Your task to perform on an android device: Add bose soundlink mini to the cart on ebay.com Image 0: 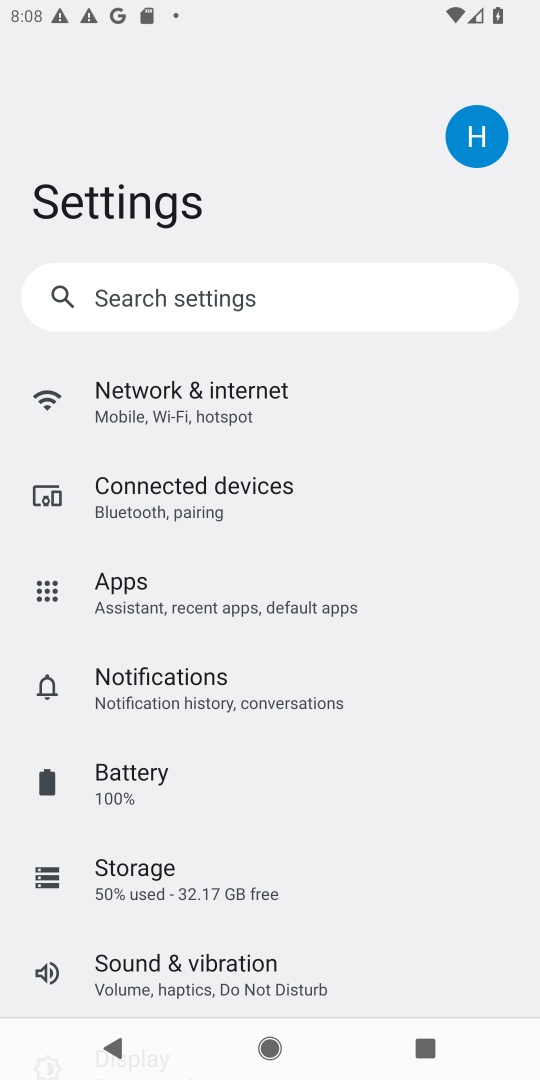
Step 0: press home button
Your task to perform on an android device: Add bose soundlink mini to the cart on ebay.com Image 1: 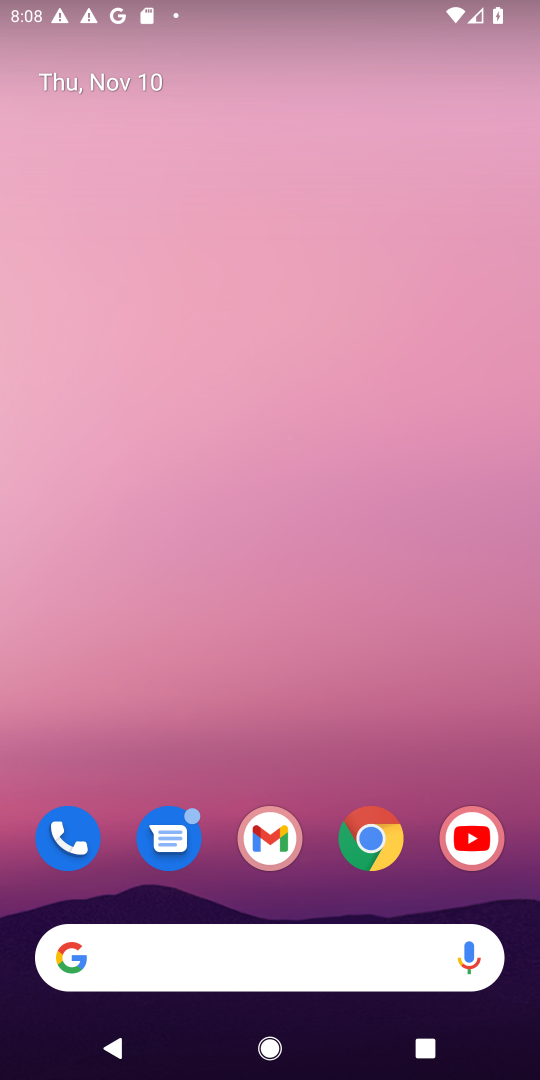
Step 1: drag from (322, 905) to (383, 59)
Your task to perform on an android device: Add bose soundlink mini to the cart on ebay.com Image 2: 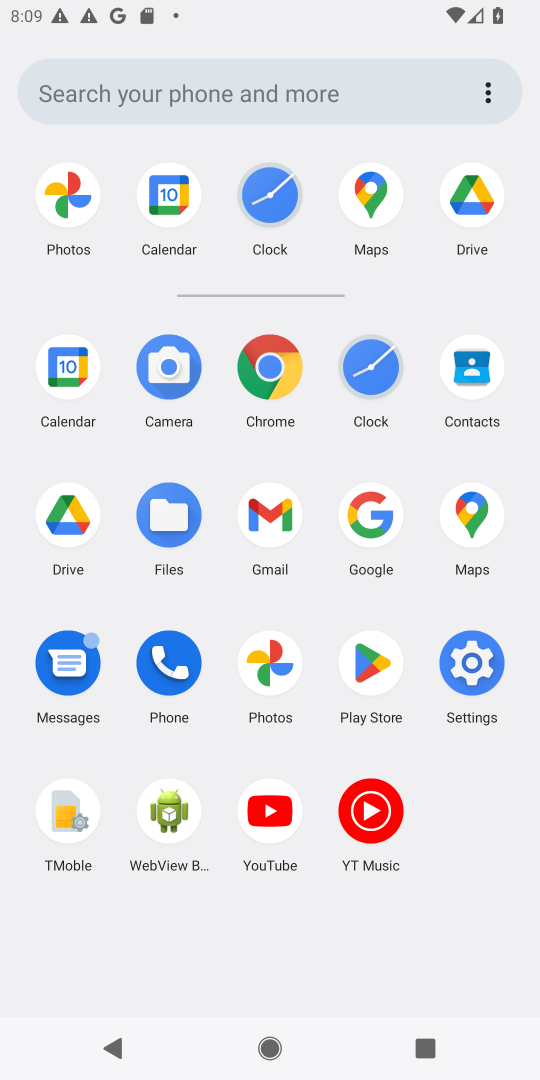
Step 2: click (278, 366)
Your task to perform on an android device: Add bose soundlink mini to the cart on ebay.com Image 3: 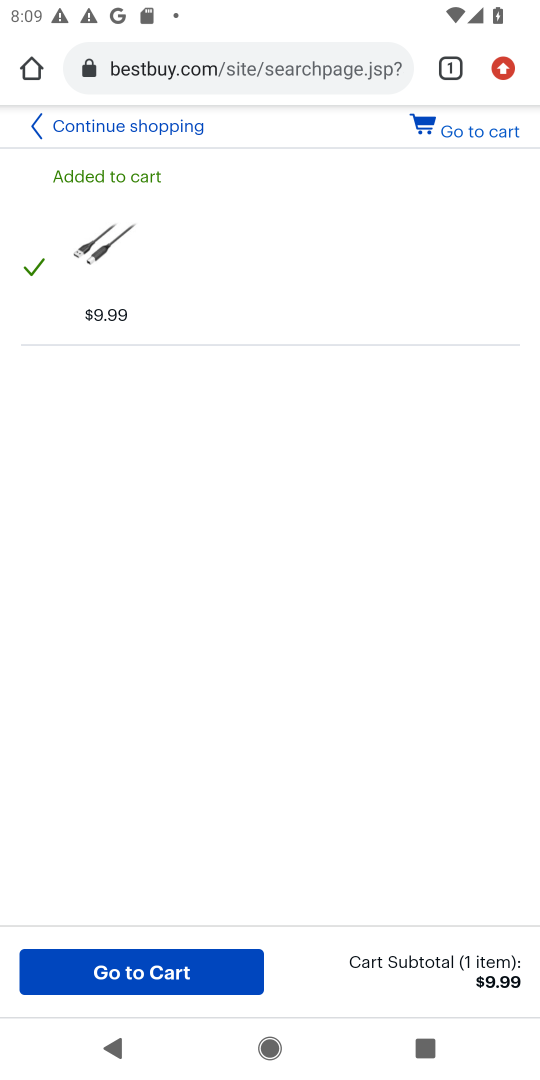
Step 3: click (286, 69)
Your task to perform on an android device: Add bose soundlink mini to the cart on ebay.com Image 4: 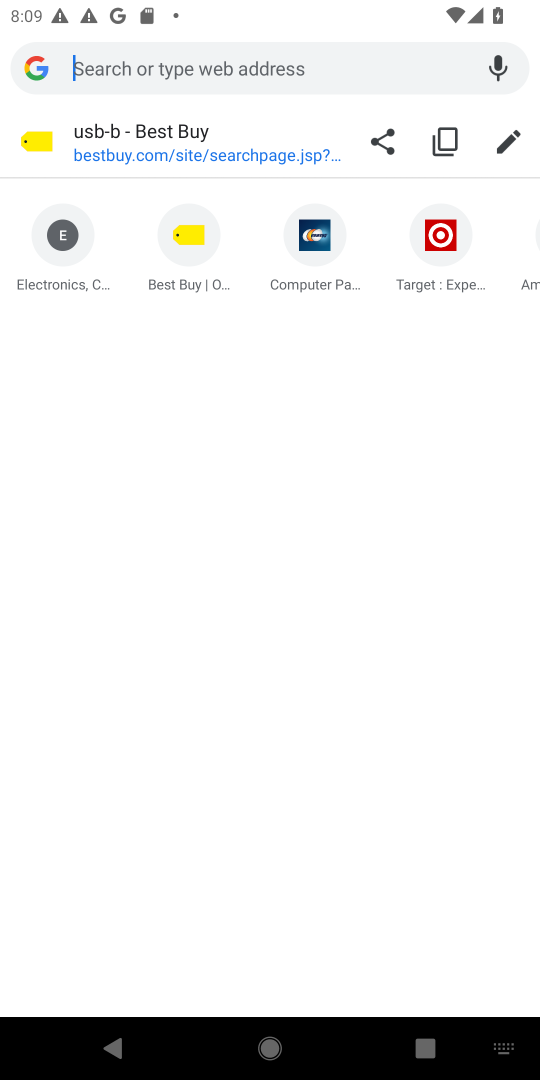
Step 4: type "ebay.com"
Your task to perform on an android device: Add bose soundlink mini to the cart on ebay.com Image 5: 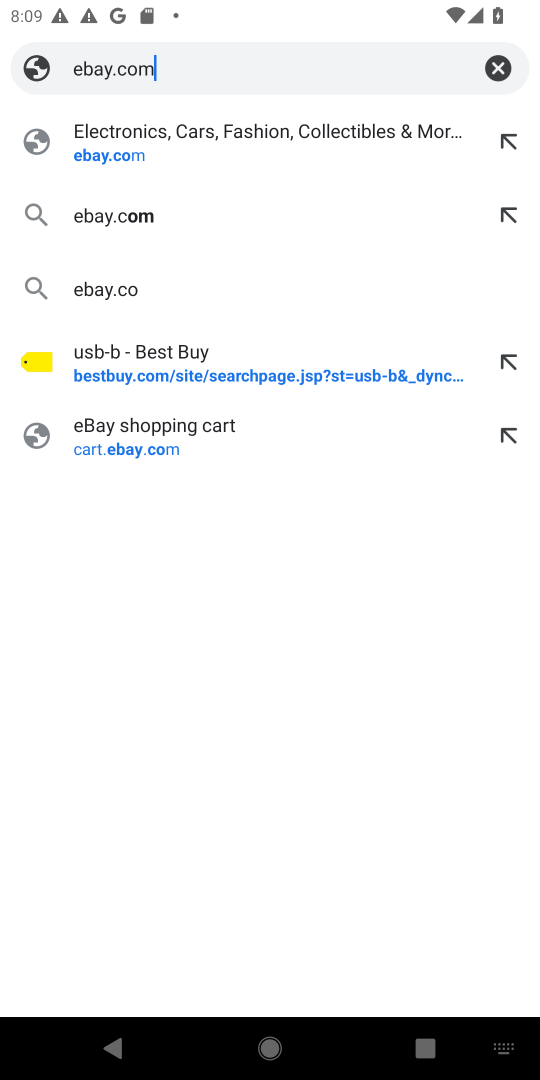
Step 5: press enter
Your task to perform on an android device: Add bose soundlink mini to the cart on ebay.com Image 6: 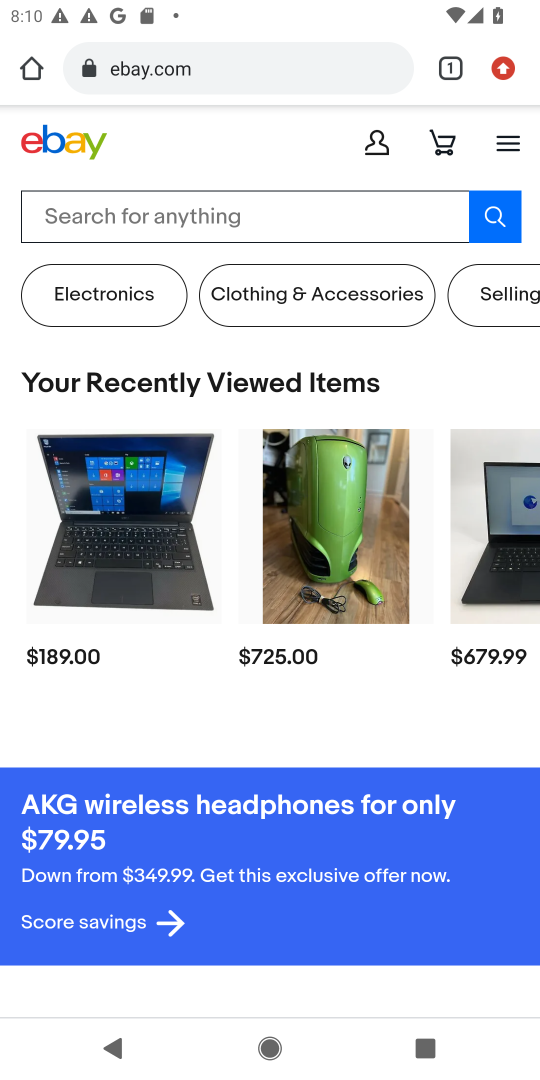
Step 6: click (266, 229)
Your task to perform on an android device: Add bose soundlink mini to the cart on ebay.com Image 7: 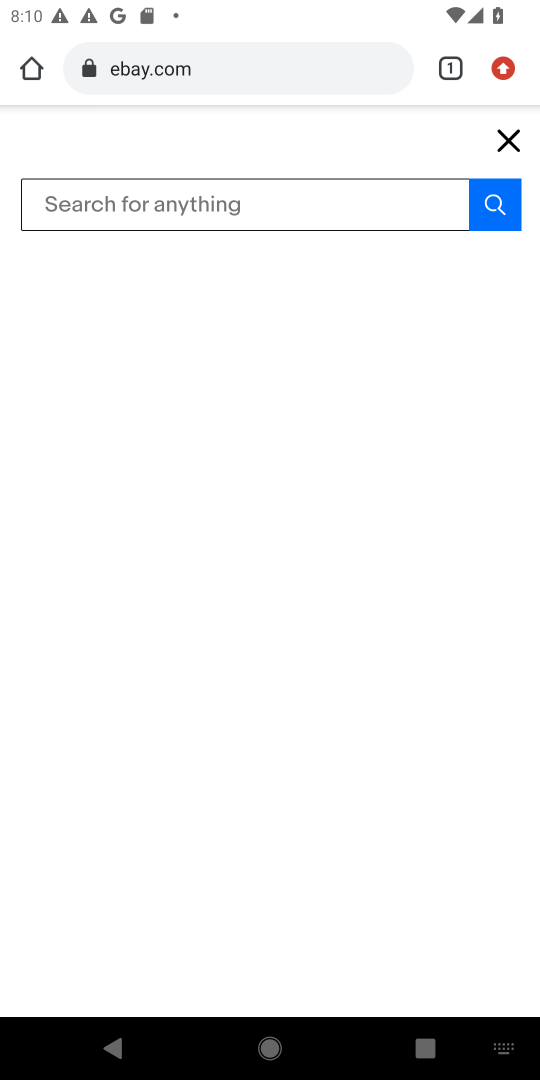
Step 7: type "bose soundlink mini"
Your task to perform on an android device: Add bose soundlink mini to the cart on ebay.com Image 8: 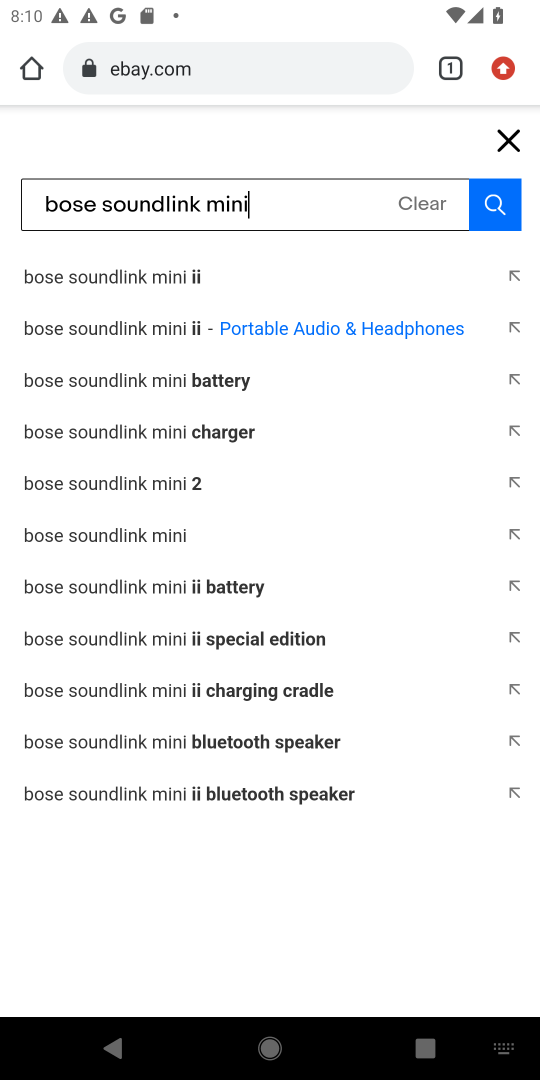
Step 8: press enter
Your task to perform on an android device: Add bose soundlink mini to the cart on ebay.com Image 9: 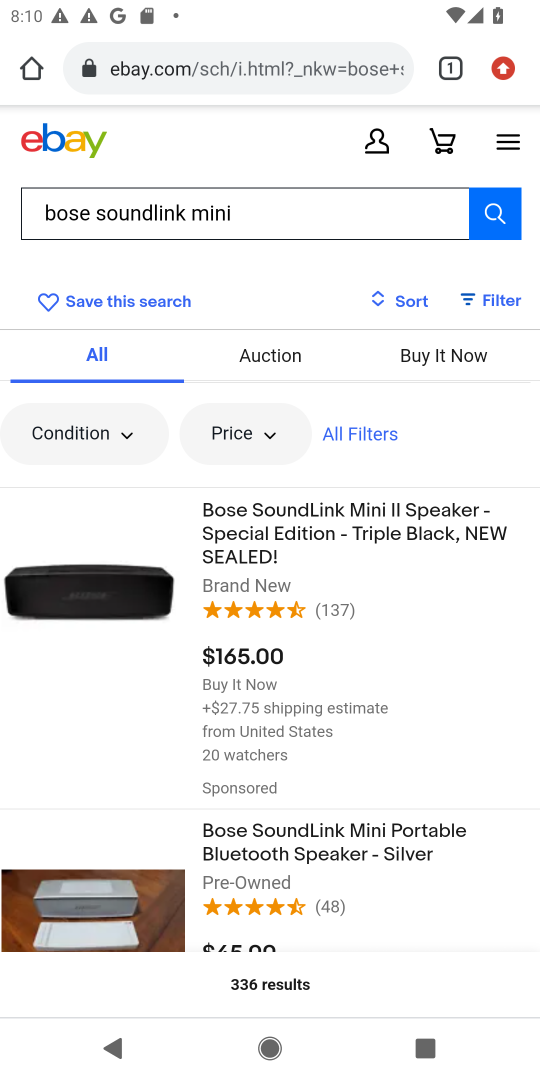
Step 9: click (261, 530)
Your task to perform on an android device: Add bose soundlink mini to the cart on ebay.com Image 10: 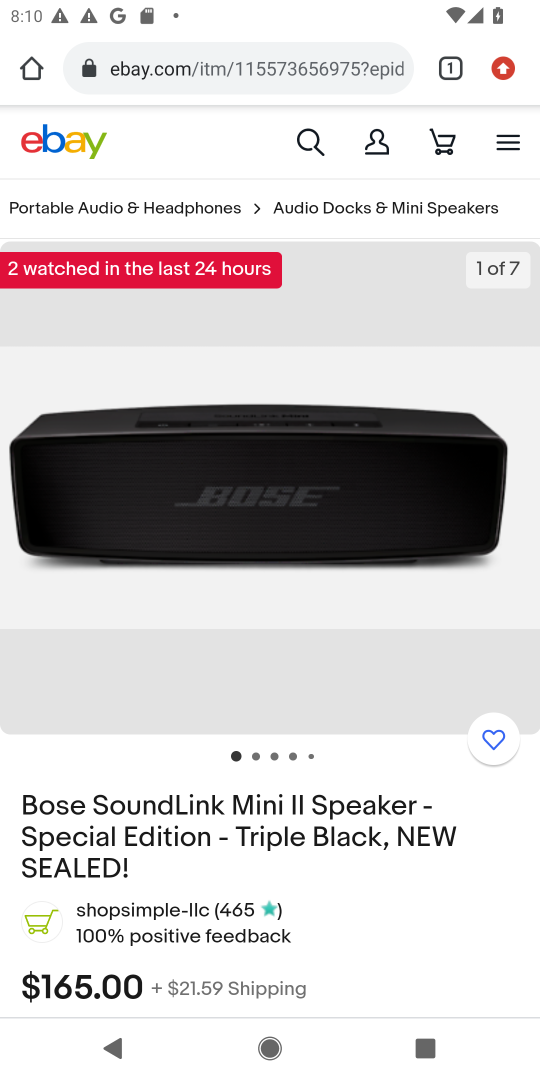
Step 10: drag from (330, 975) to (350, 173)
Your task to perform on an android device: Add bose soundlink mini to the cart on ebay.com Image 11: 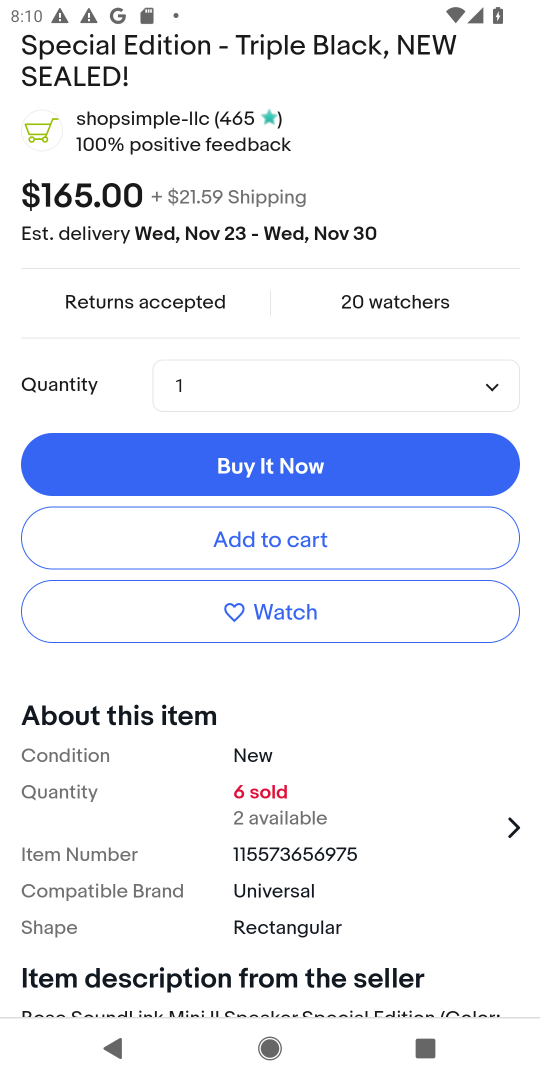
Step 11: click (247, 519)
Your task to perform on an android device: Add bose soundlink mini to the cart on ebay.com Image 12: 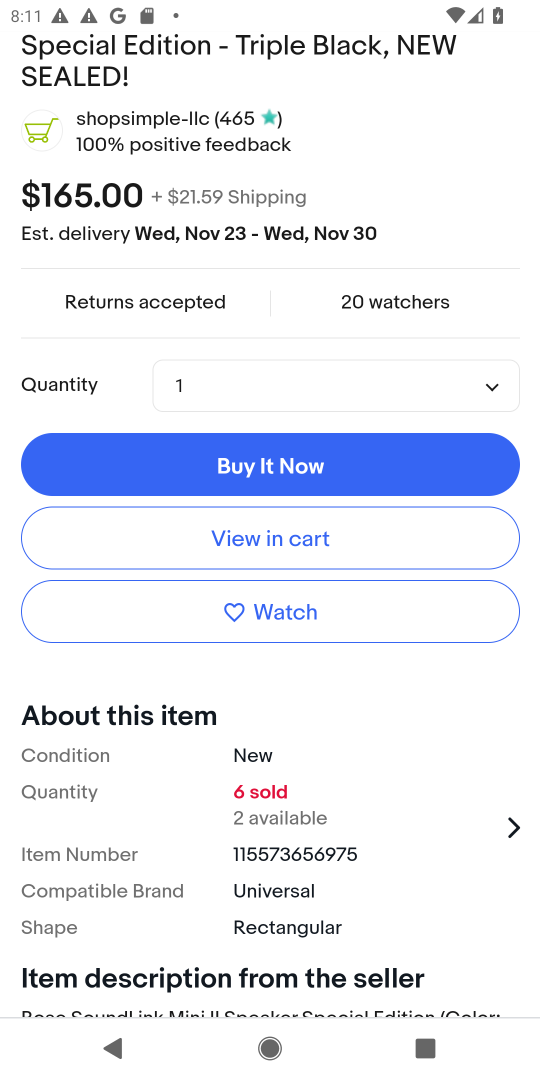
Step 12: task complete